Your task to perform on an android device: change the clock display to analog Image 0: 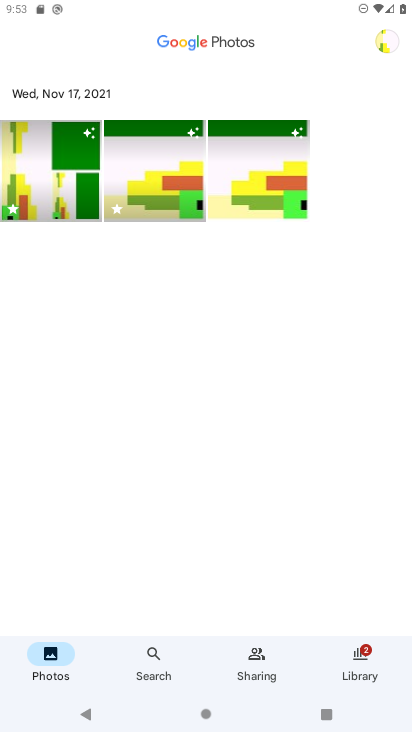
Step 0: press home button
Your task to perform on an android device: change the clock display to analog Image 1: 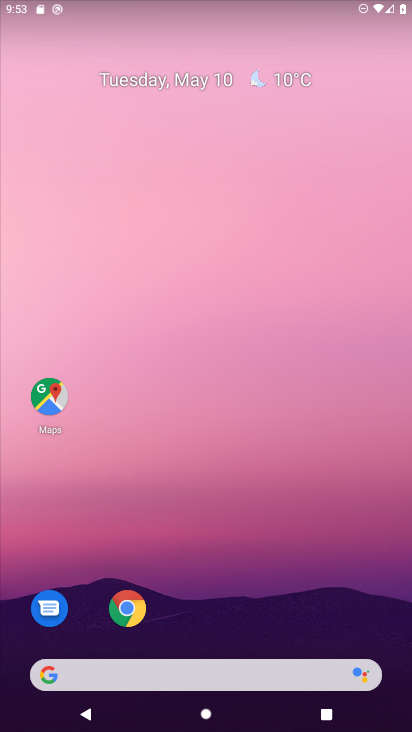
Step 1: drag from (347, 591) to (220, 62)
Your task to perform on an android device: change the clock display to analog Image 2: 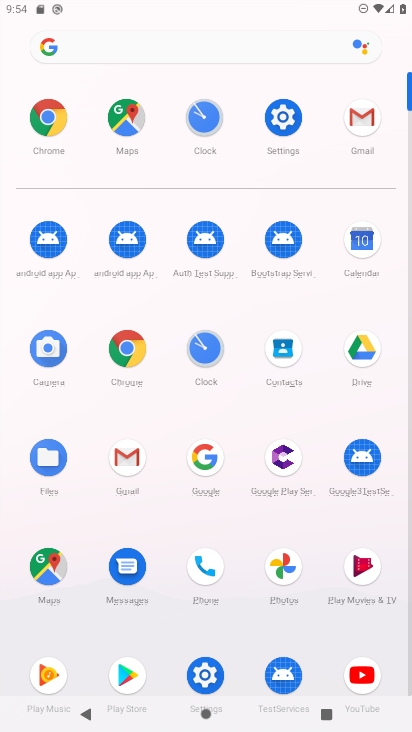
Step 2: click (220, 129)
Your task to perform on an android device: change the clock display to analog Image 3: 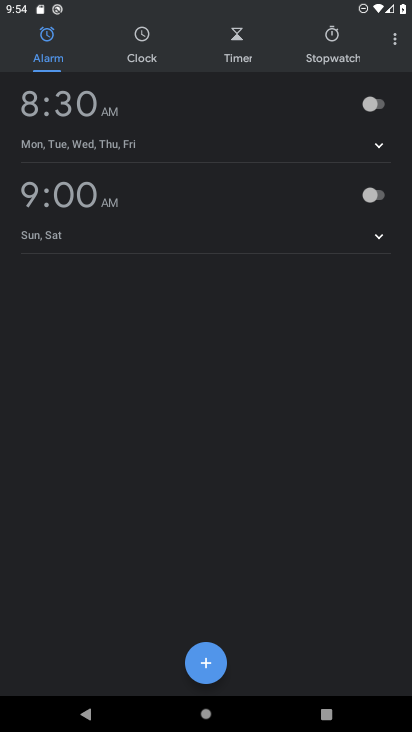
Step 3: click (392, 35)
Your task to perform on an android device: change the clock display to analog Image 4: 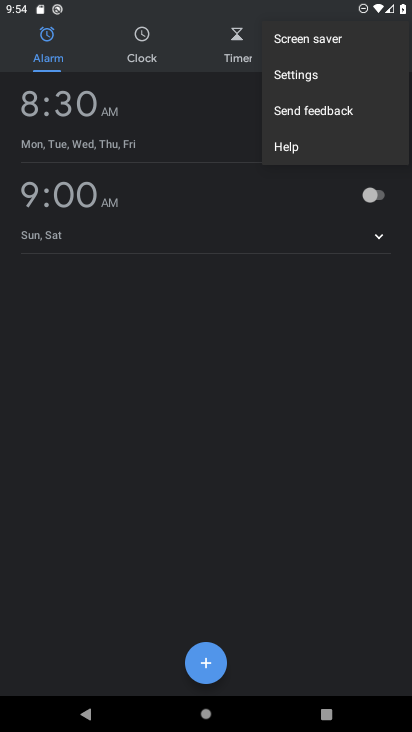
Step 4: click (310, 74)
Your task to perform on an android device: change the clock display to analog Image 5: 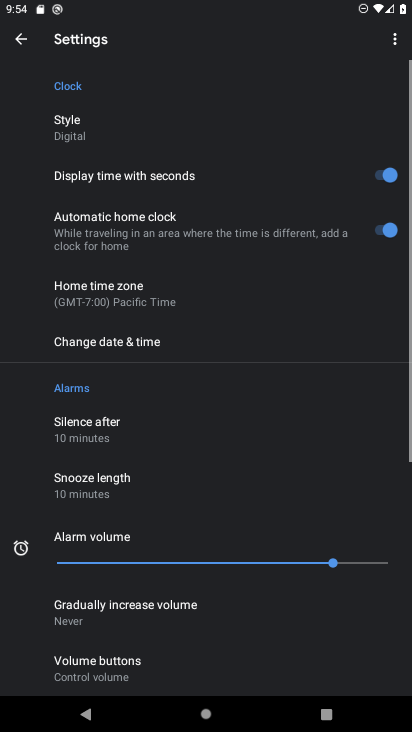
Step 5: click (119, 121)
Your task to perform on an android device: change the clock display to analog Image 6: 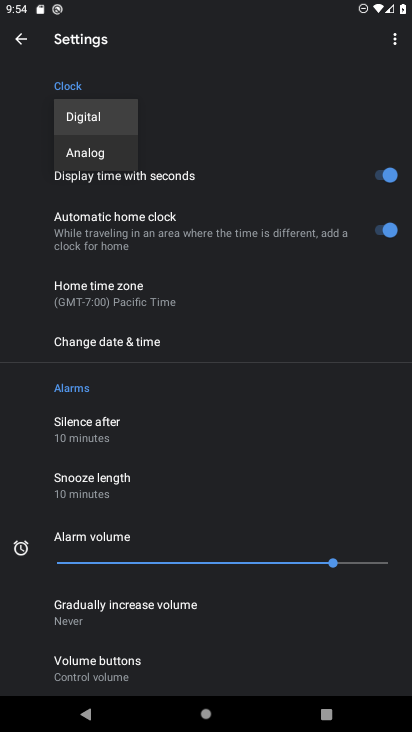
Step 6: click (103, 156)
Your task to perform on an android device: change the clock display to analog Image 7: 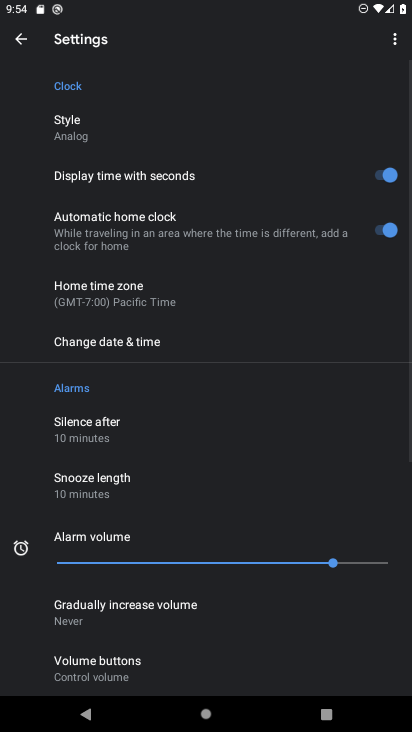
Step 7: task complete